Your task to perform on an android device: Open Wikipedia Image 0: 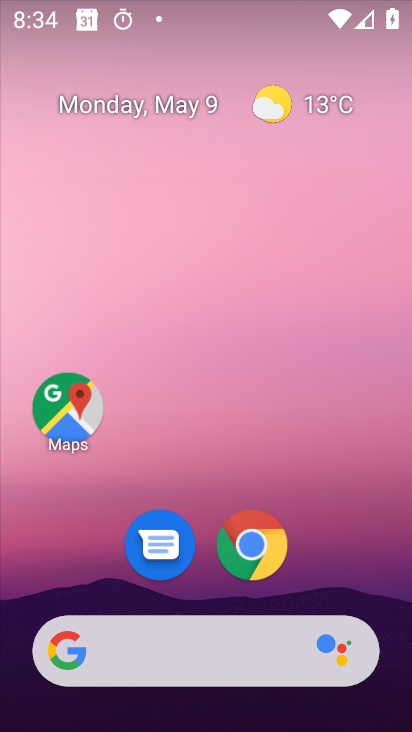
Step 0: click (397, 532)
Your task to perform on an android device: Open Wikipedia Image 1: 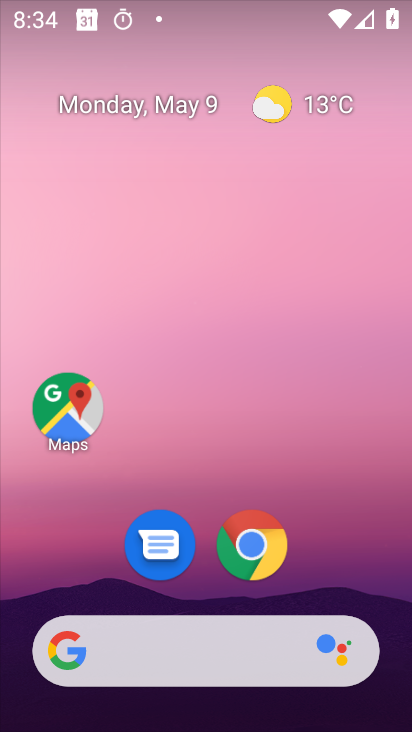
Step 1: drag from (340, 513) to (261, 95)
Your task to perform on an android device: Open Wikipedia Image 2: 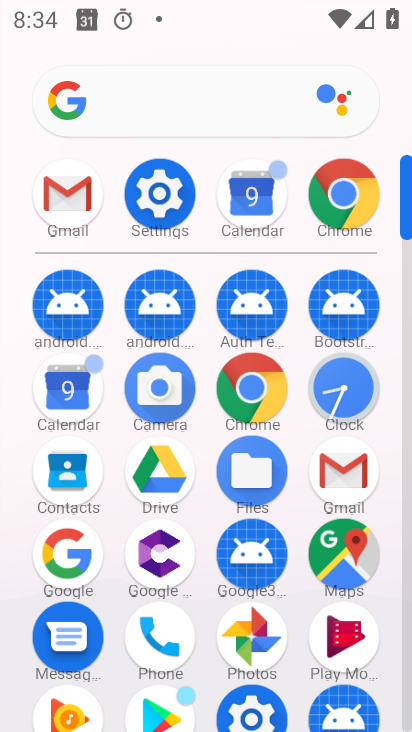
Step 2: click (350, 210)
Your task to perform on an android device: Open Wikipedia Image 3: 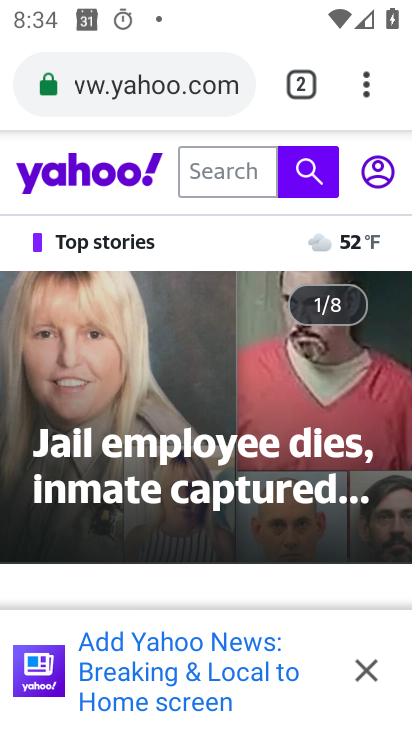
Step 3: click (135, 97)
Your task to perform on an android device: Open Wikipedia Image 4: 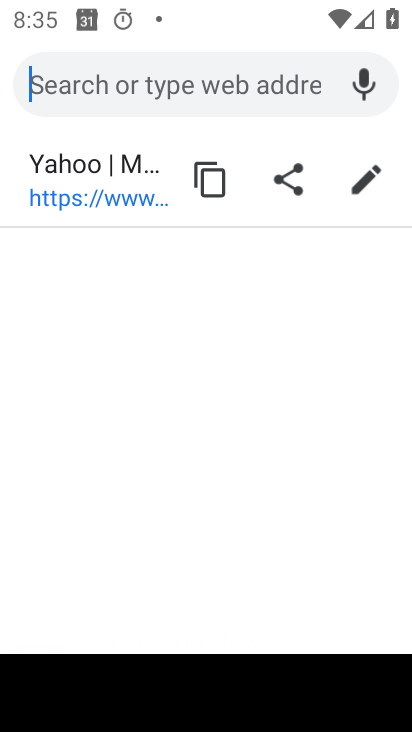
Step 4: type "wikipedia"
Your task to perform on an android device: Open Wikipedia Image 5: 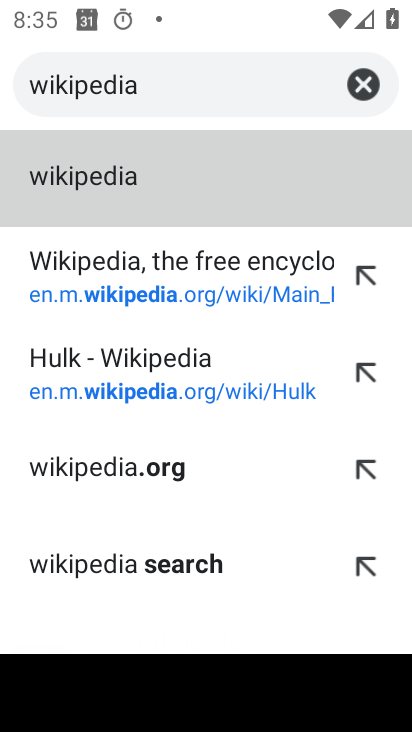
Step 5: click (135, 280)
Your task to perform on an android device: Open Wikipedia Image 6: 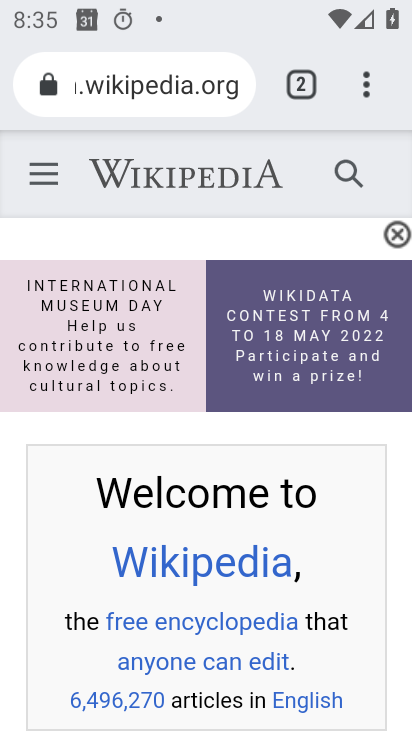
Step 6: task complete